Your task to perform on an android device: open a bookmark in the chrome app Image 0: 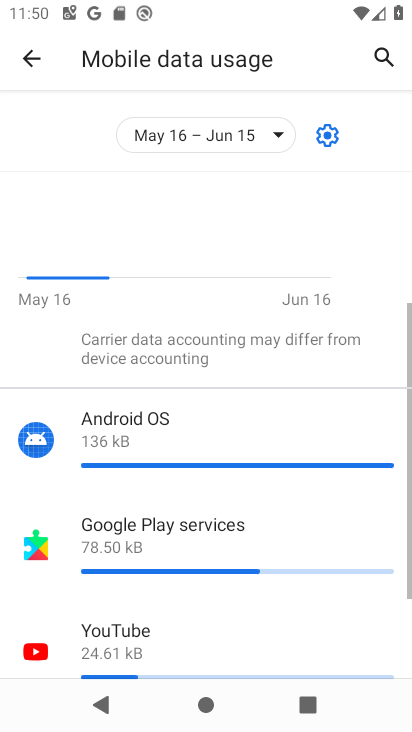
Step 0: press home button
Your task to perform on an android device: open a bookmark in the chrome app Image 1: 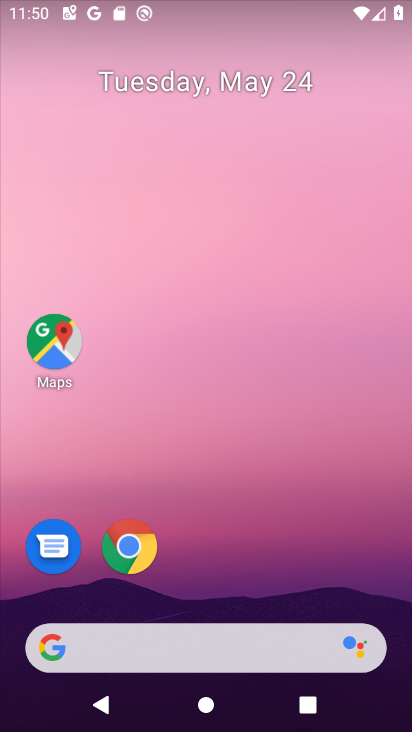
Step 1: click (123, 552)
Your task to perform on an android device: open a bookmark in the chrome app Image 2: 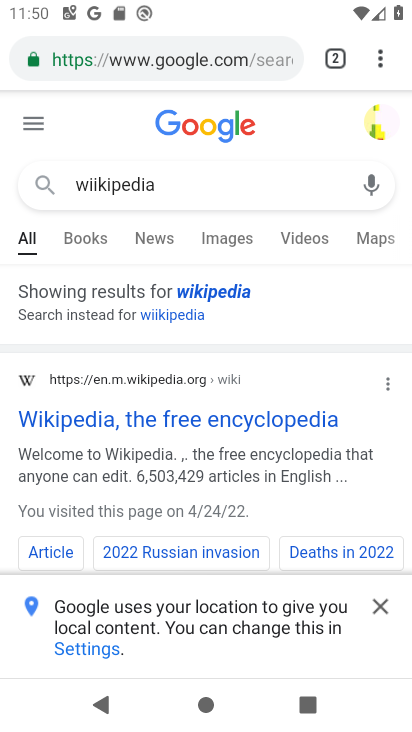
Step 2: click (373, 49)
Your task to perform on an android device: open a bookmark in the chrome app Image 3: 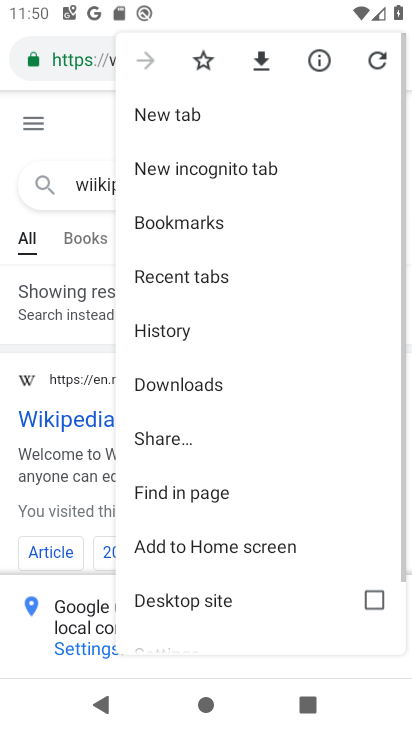
Step 3: click (177, 225)
Your task to perform on an android device: open a bookmark in the chrome app Image 4: 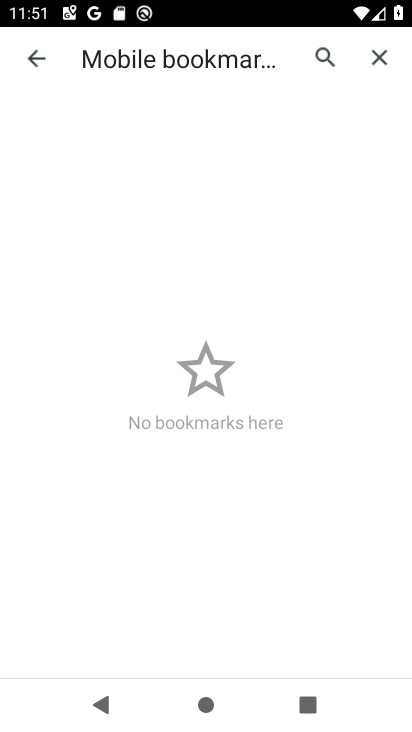
Step 4: task complete